Your task to perform on an android device: turn on the 12-hour format for clock Image 0: 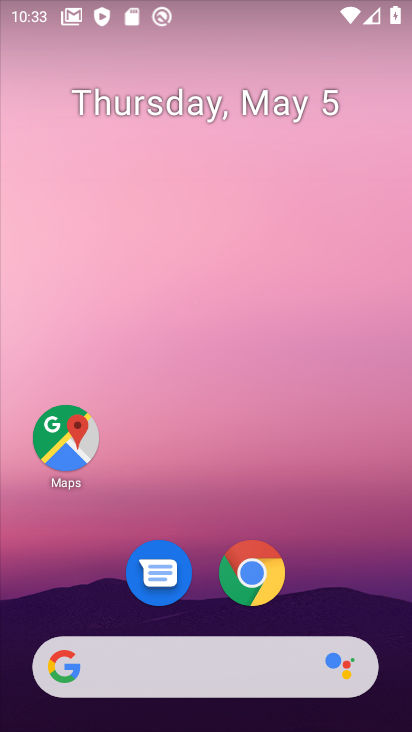
Step 0: drag from (57, 640) to (250, 183)
Your task to perform on an android device: turn on the 12-hour format for clock Image 1: 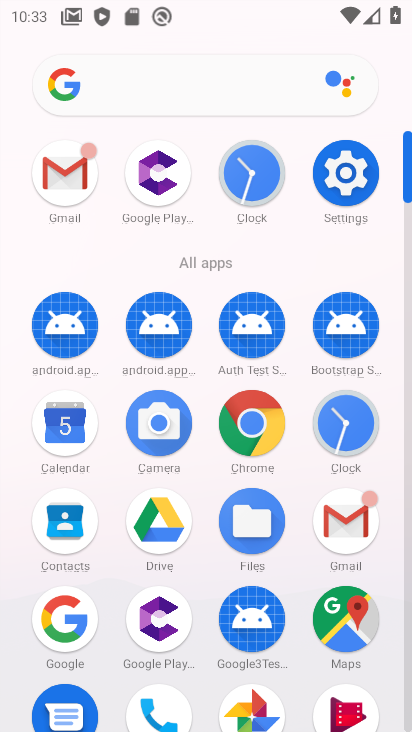
Step 1: click (348, 431)
Your task to perform on an android device: turn on the 12-hour format for clock Image 2: 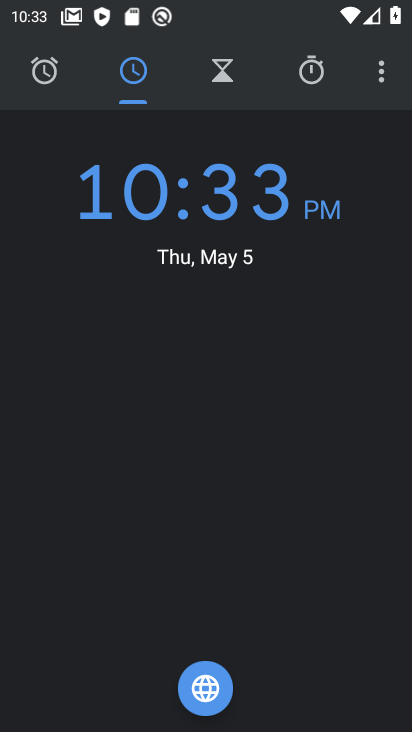
Step 2: click (381, 70)
Your task to perform on an android device: turn on the 12-hour format for clock Image 3: 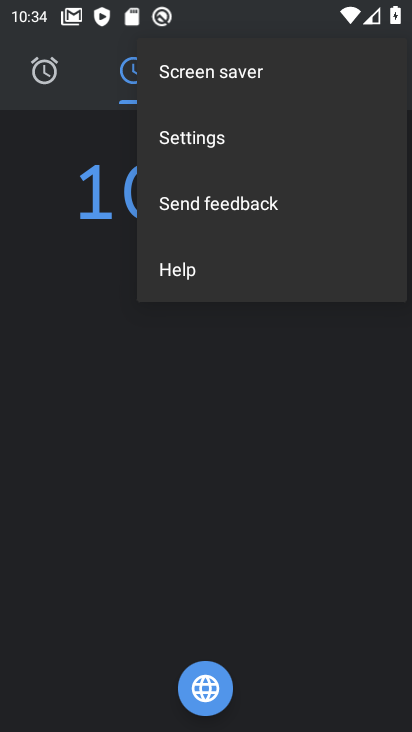
Step 3: click (212, 139)
Your task to perform on an android device: turn on the 12-hour format for clock Image 4: 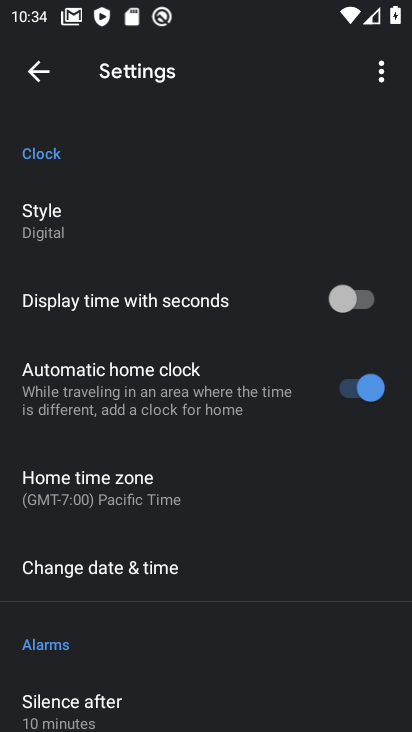
Step 4: click (106, 573)
Your task to perform on an android device: turn on the 12-hour format for clock Image 5: 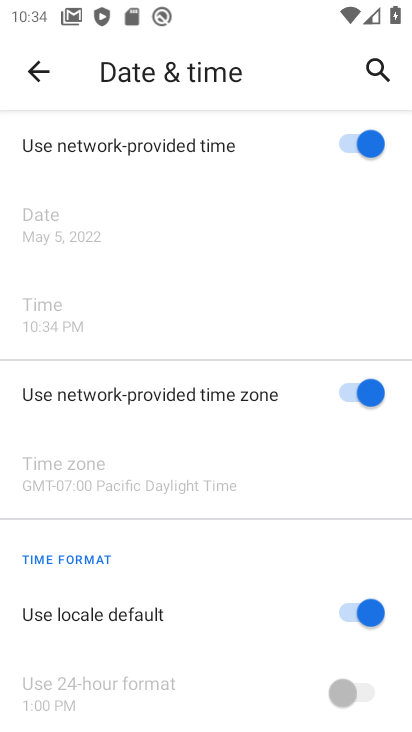
Step 5: task complete